Your task to perform on an android device: Open display settings Image 0: 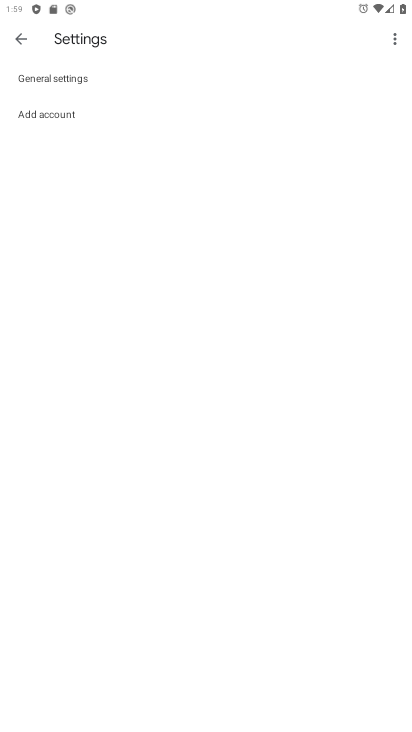
Step 0: drag from (231, 469) to (198, 255)
Your task to perform on an android device: Open display settings Image 1: 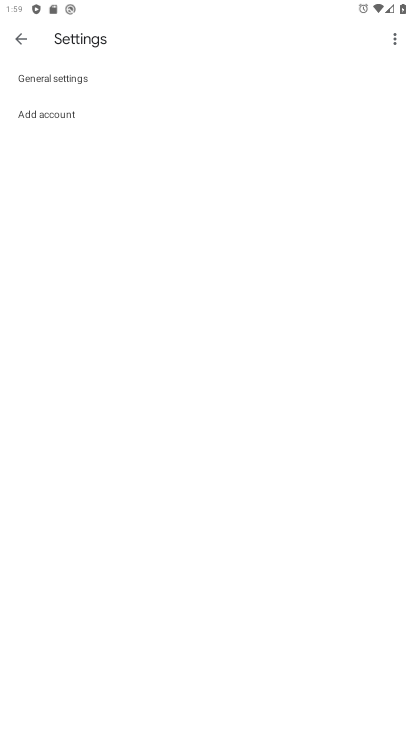
Step 1: click (21, 45)
Your task to perform on an android device: Open display settings Image 2: 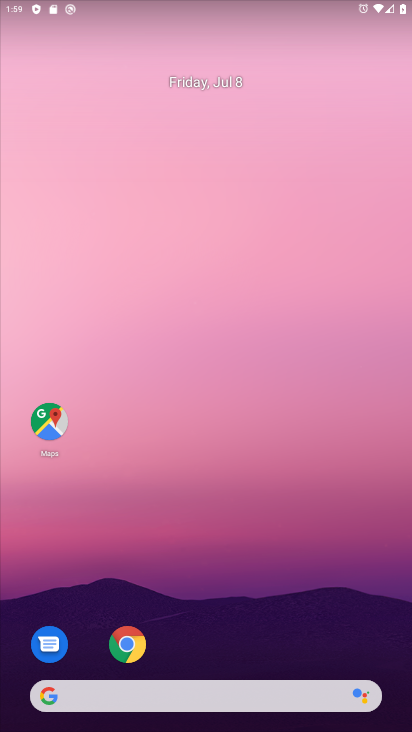
Step 2: drag from (230, 690) to (122, 173)
Your task to perform on an android device: Open display settings Image 3: 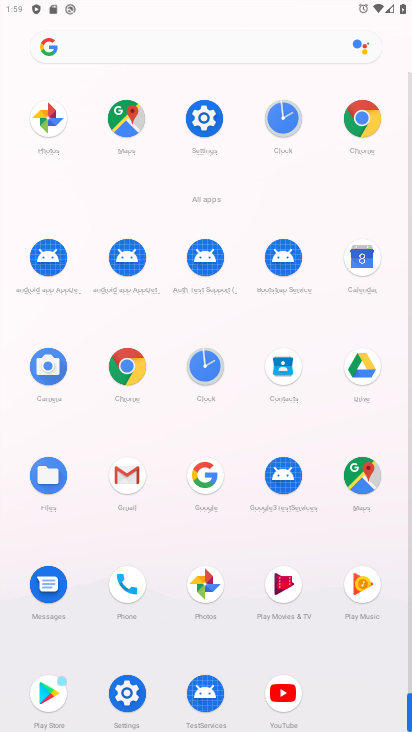
Step 3: click (201, 120)
Your task to perform on an android device: Open display settings Image 4: 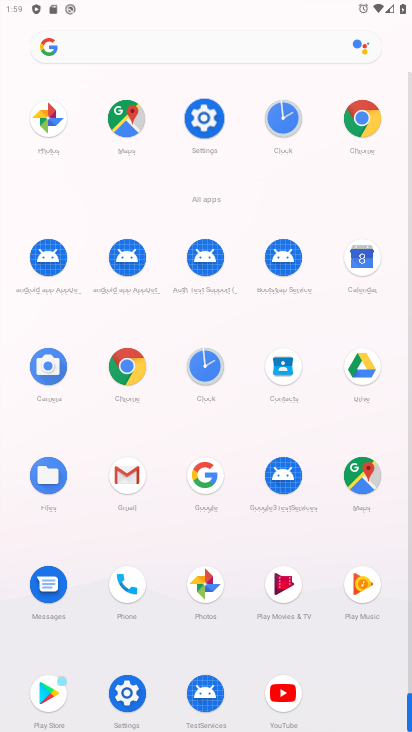
Step 4: click (201, 120)
Your task to perform on an android device: Open display settings Image 5: 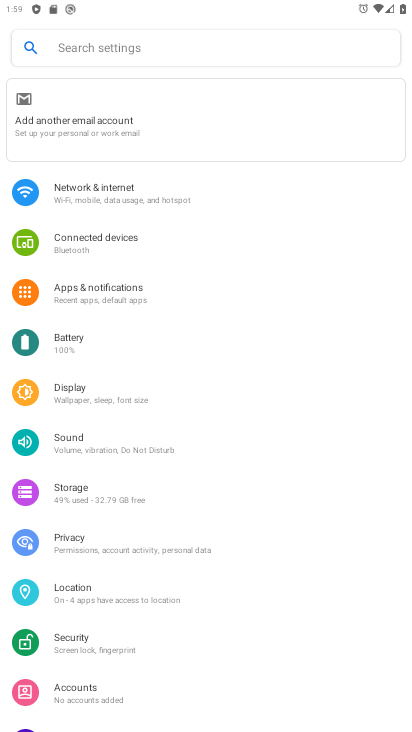
Step 5: drag from (184, 265) to (172, 212)
Your task to perform on an android device: Open display settings Image 6: 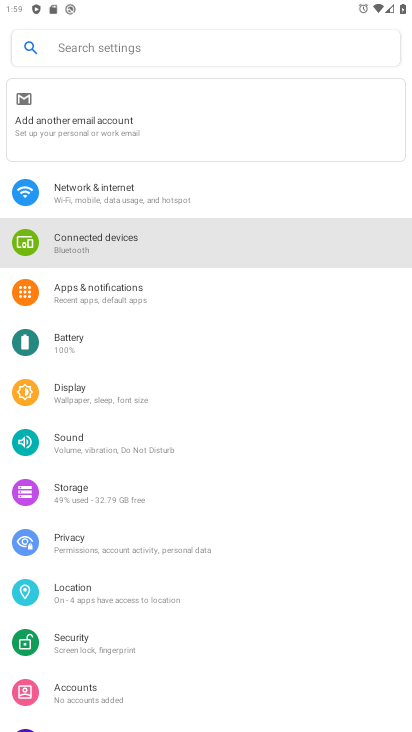
Step 6: drag from (134, 509) to (39, 172)
Your task to perform on an android device: Open display settings Image 7: 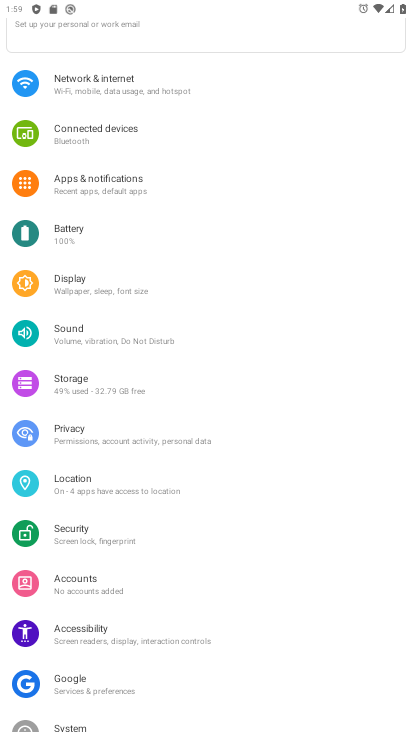
Step 7: click (76, 278)
Your task to perform on an android device: Open display settings Image 8: 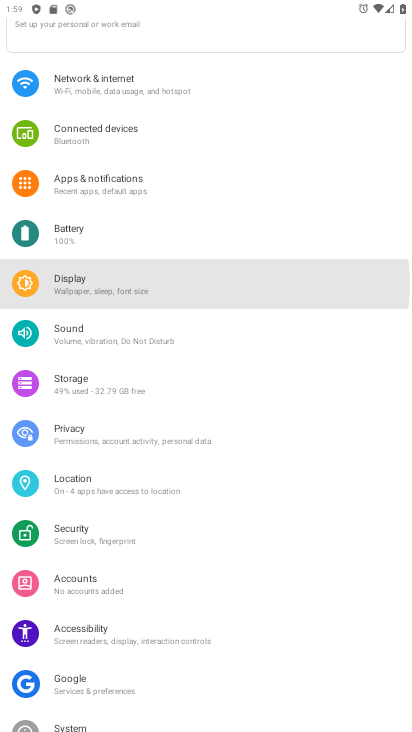
Step 8: click (76, 278)
Your task to perform on an android device: Open display settings Image 9: 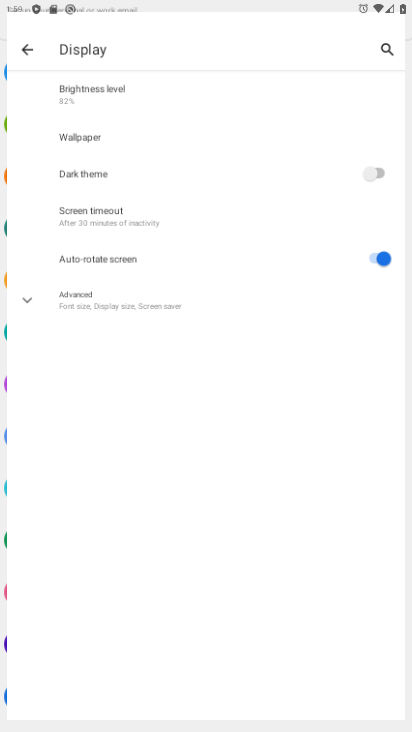
Step 9: click (76, 278)
Your task to perform on an android device: Open display settings Image 10: 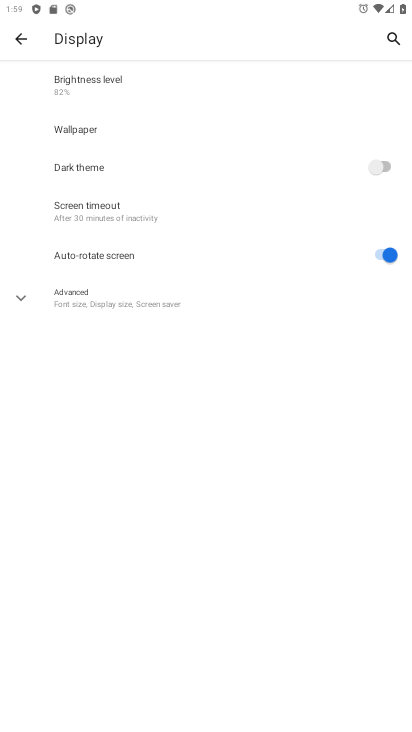
Step 10: click (77, 278)
Your task to perform on an android device: Open display settings Image 11: 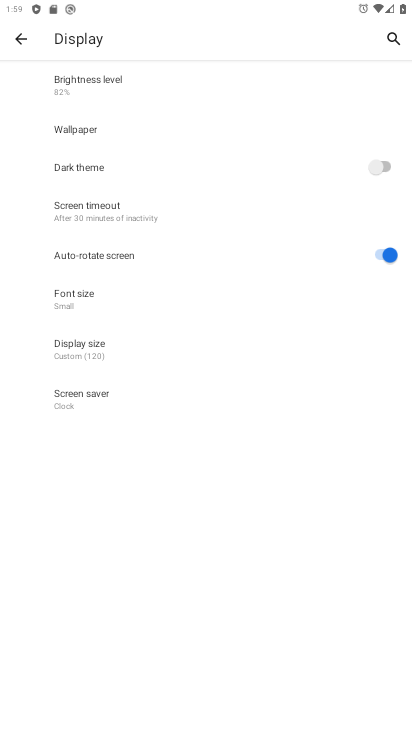
Step 11: click (72, 353)
Your task to perform on an android device: Open display settings Image 12: 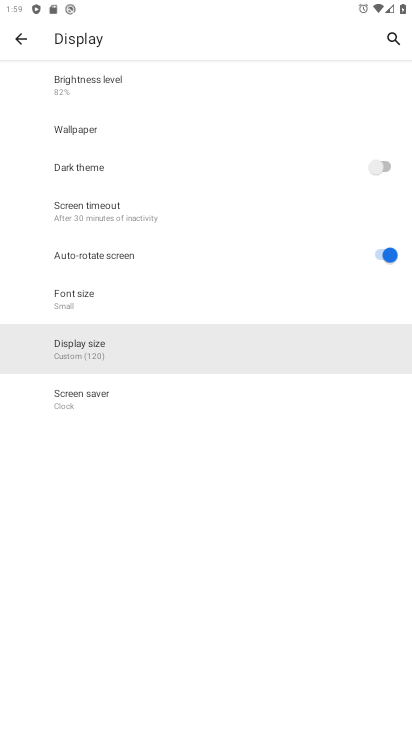
Step 12: click (73, 352)
Your task to perform on an android device: Open display settings Image 13: 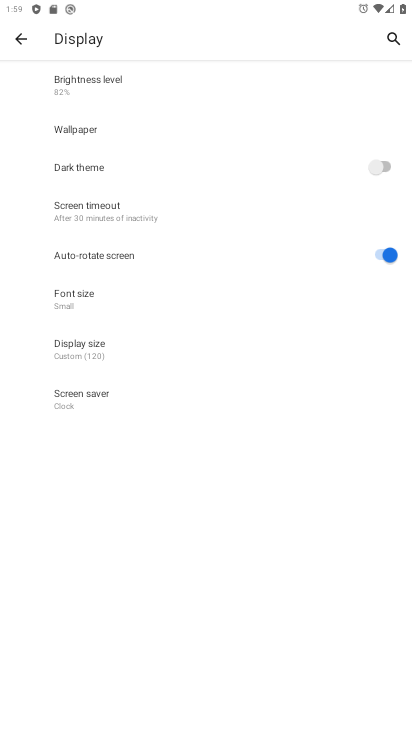
Step 13: click (73, 352)
Your task to perform on an android device: Open display settings Image 14: 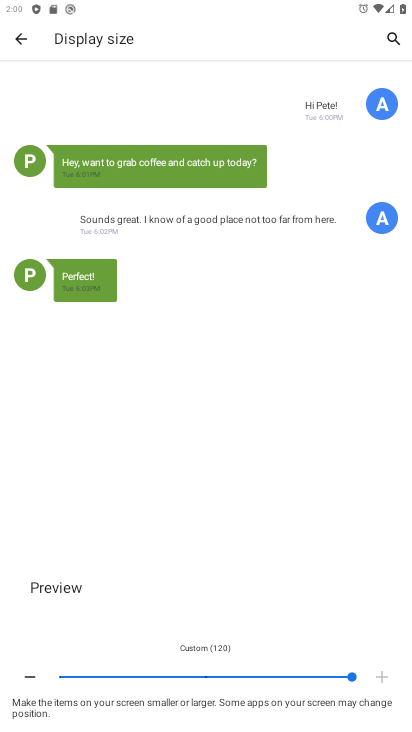
Step 14: click (381, 677)
Your task to perform on an android device: Open display settings Image 15: 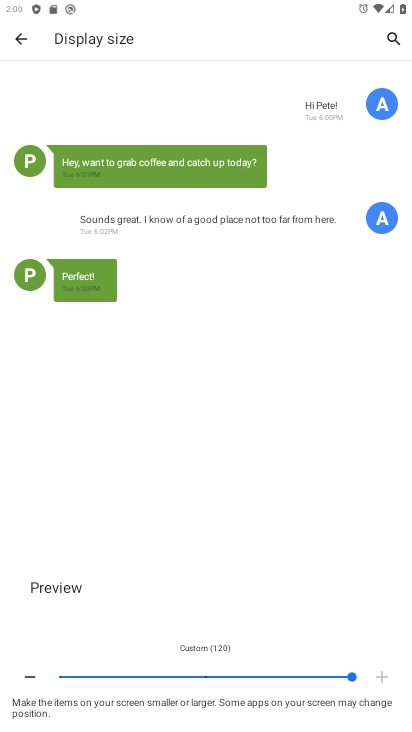
Step 15: click (381, 677)
Your task to perform on an android device: Open display settings Image 16: 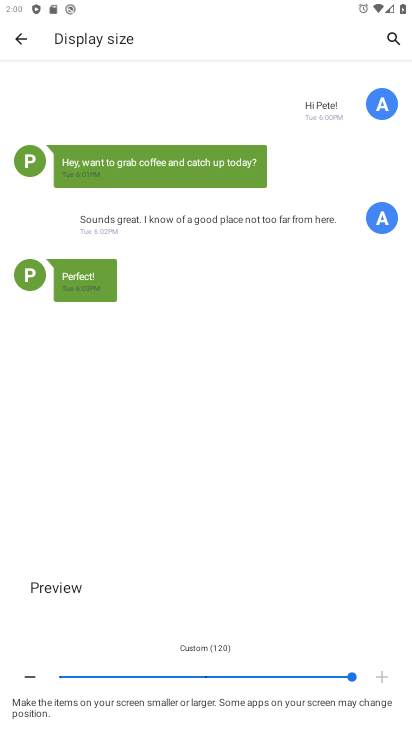
Step 16: click (381, 677)
Your task to perform on an android device: Open display settings Image 17: 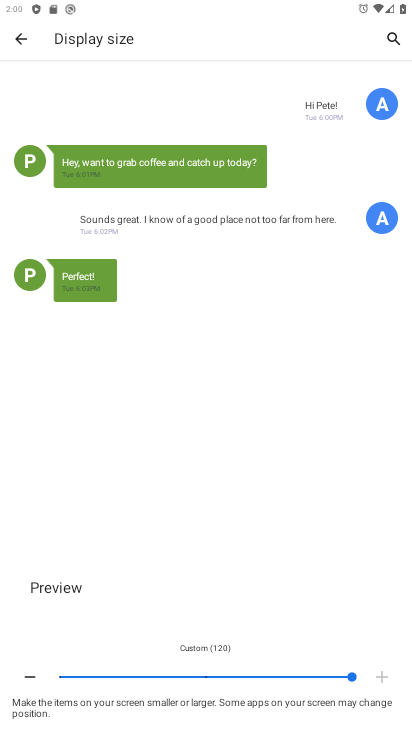
Step 17: click (381, 677)
Your task to perform on an android device: Open display settings Image 18: 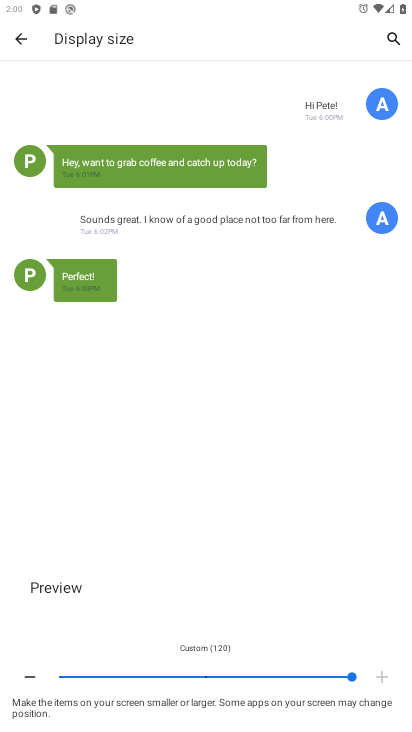
Step 18: click (381, 677)
Your task to perform on an android device: Open display settings Image 19: 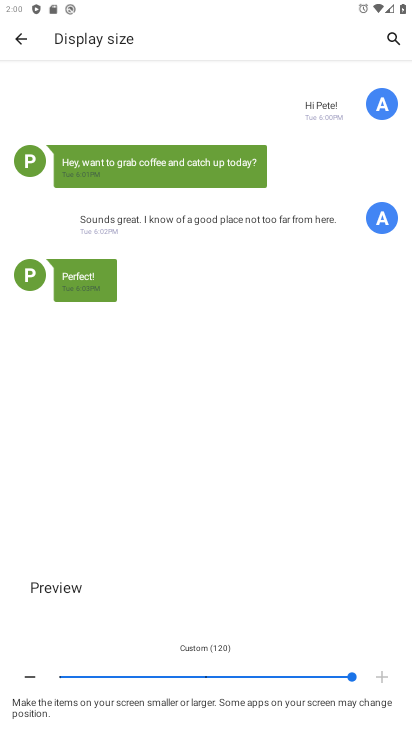
Step 19: click (381, 677)
Your task to perform on an android device: Open display settings Image 20: 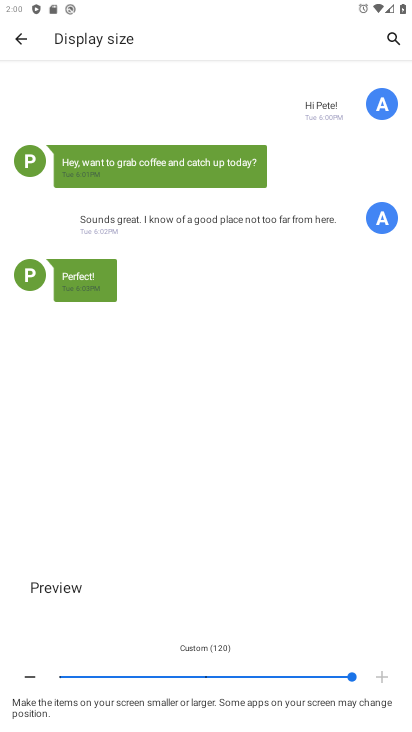
Step 20: task complete